Your task to perform on an android device: Search for macbook air on target, select the first entry, and add it to the cart. Image 0: 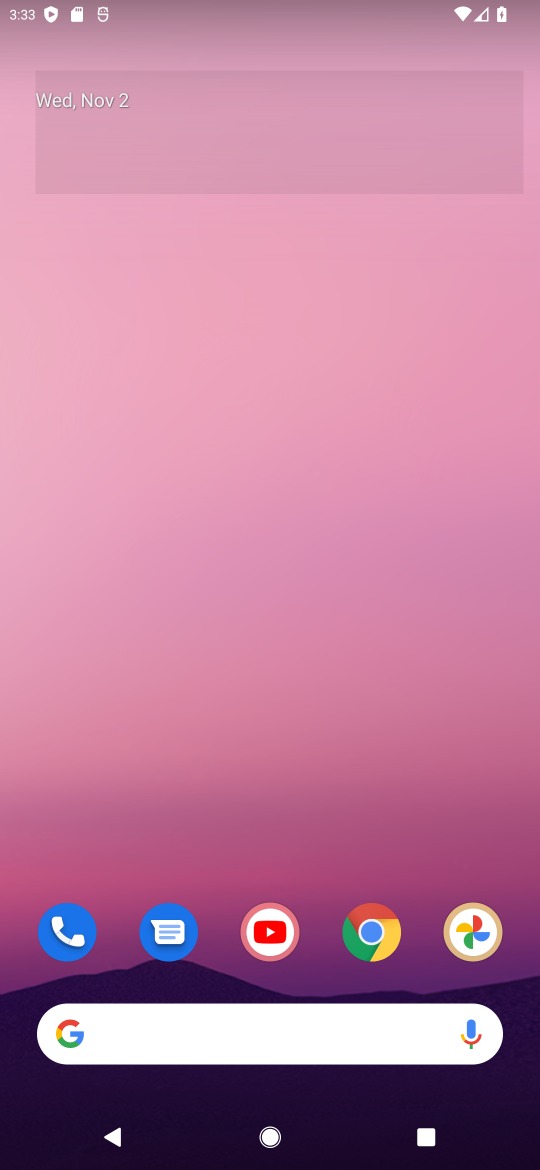
Step 0: click (367, 935)
Your task to perform on an android device: Search for macbook air on target, select the first entry, and add it to the cart. Image 1: 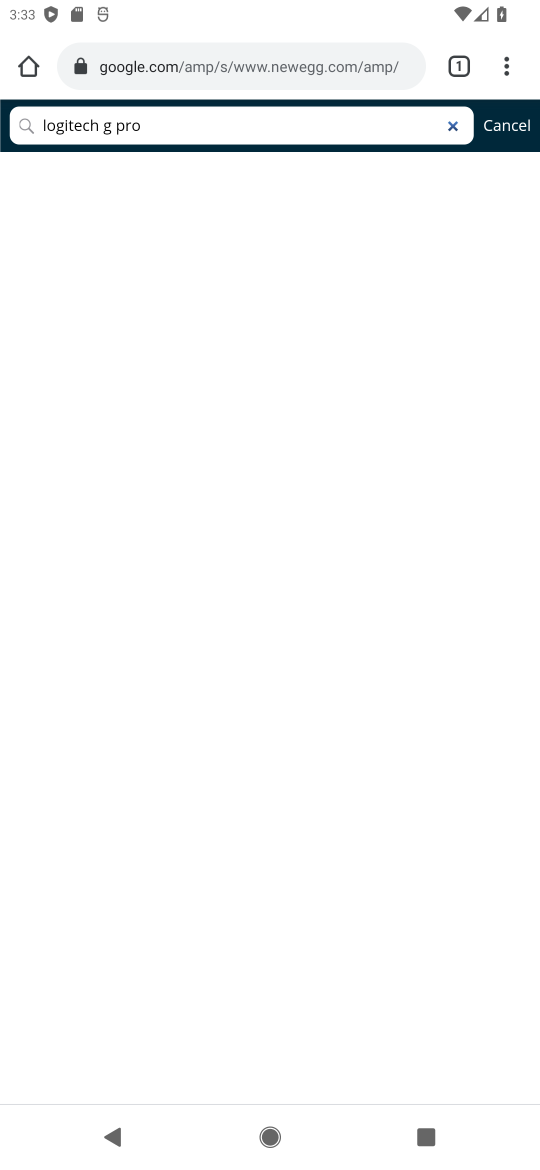
Step 1: click (315, 62)
Your task to perform on an android device: Search for macbook air on target, select the first entry, and add it to the cart. Image 2: 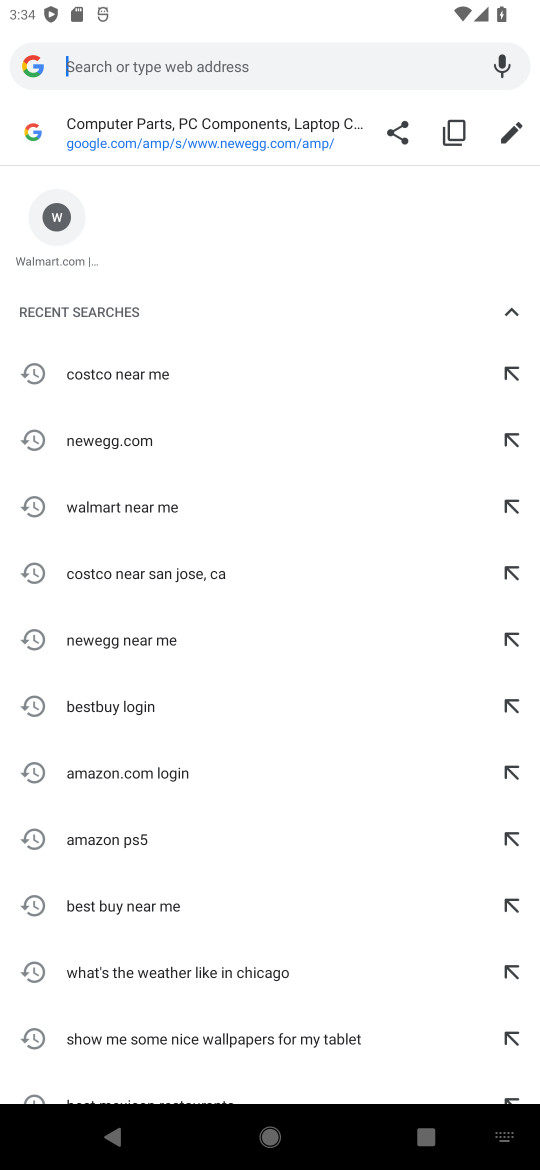
Step 2: type "target"
Your task to perform on an android device: Search for macbook air on target, select the first entry, and add it to the cart. Image 3: 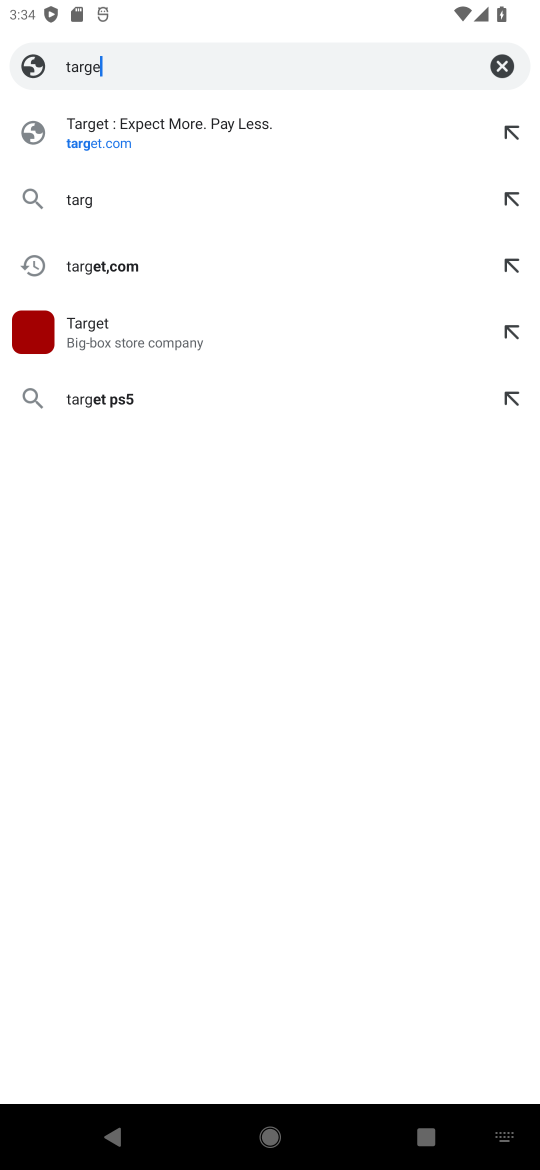
Step 3: press enter
Your task to perform on an android device: Search for macbook air on target, select the first entry, and add it to the cart. Image 4: 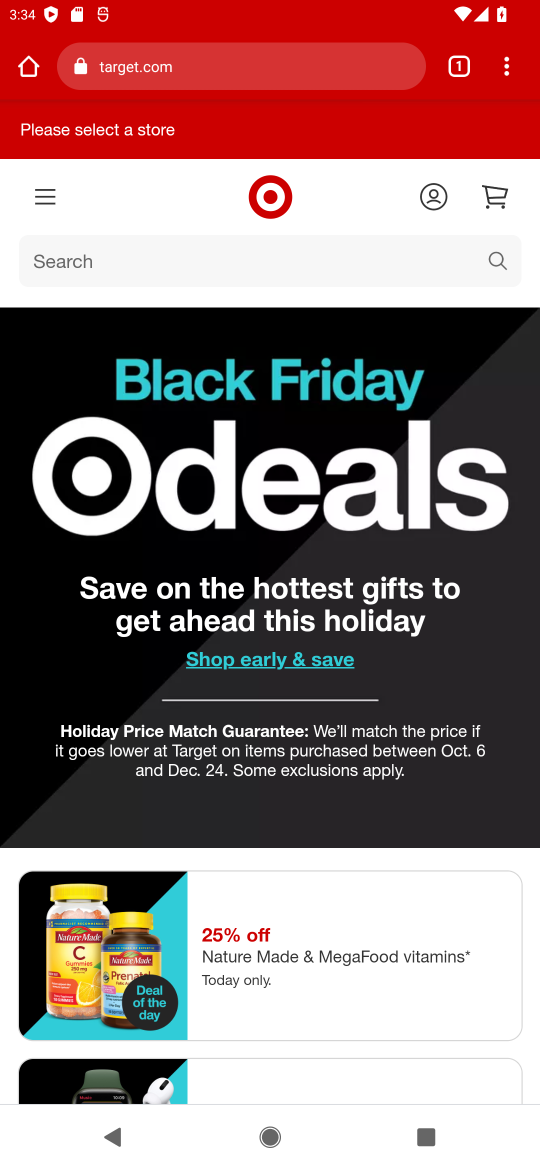
Step 4: click (488, 258)
Your task to perform on an android device: Search for macbook air on target, select the first entry, and add it to the cart. Image 5: 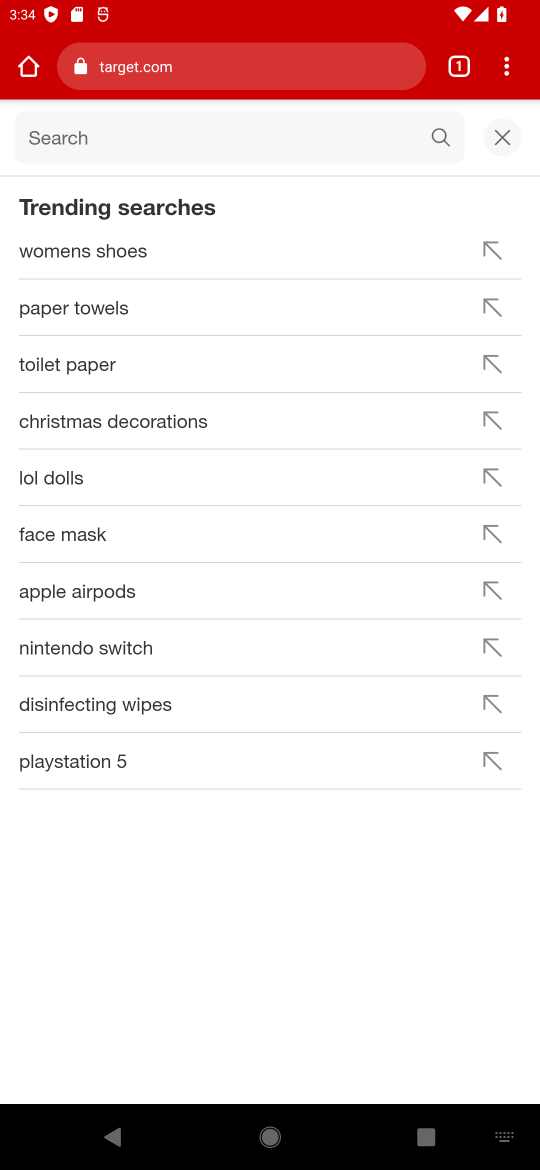
Step 5: type "macbook air"
Your task to perform on an android device: Search for macbook air on target, select the first entry, and add it to the cart. Image 6: 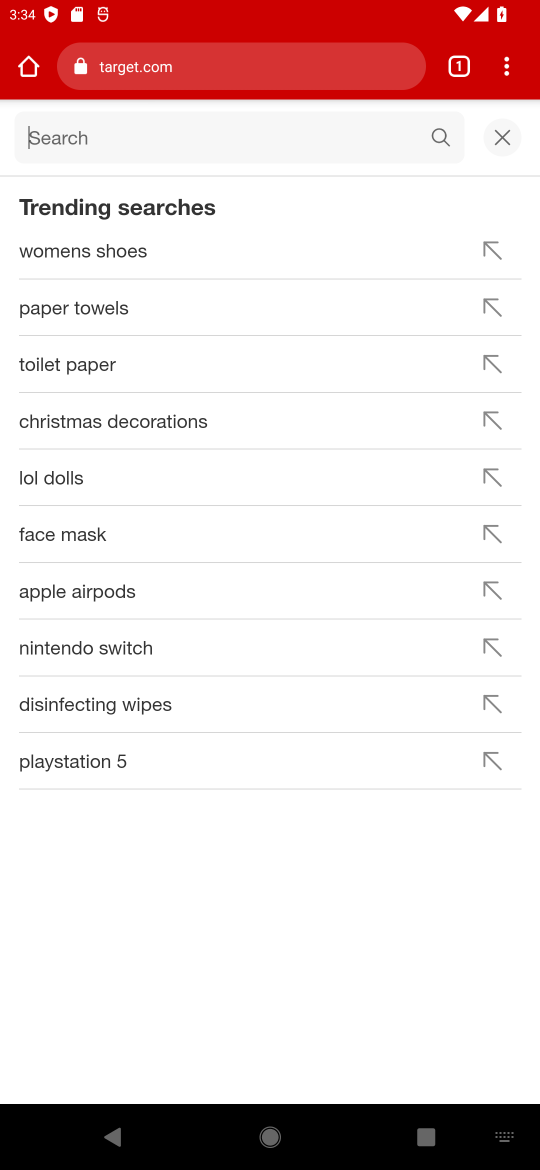
Step 6: press enter
Your task to perform on an android device: Search for macbook air on target, select the first entry, and add it to the cart. Image 7: 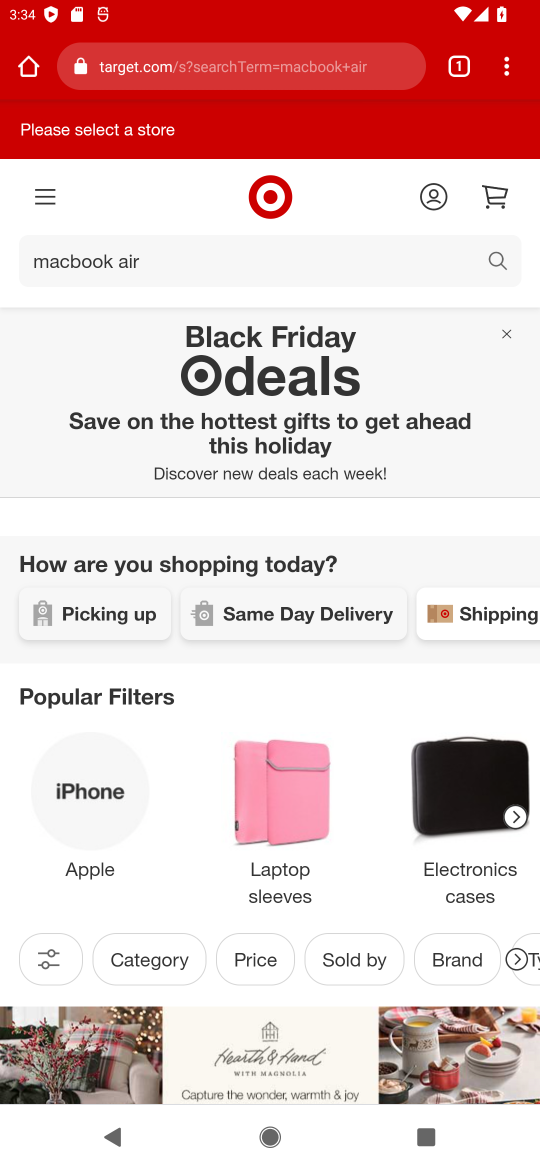
Step 7: drag from (345, 896) to (353, 474)
Your task to perform on an android device: Search for macbook air on target, select the first entry, and add it to the cart. Image 8: 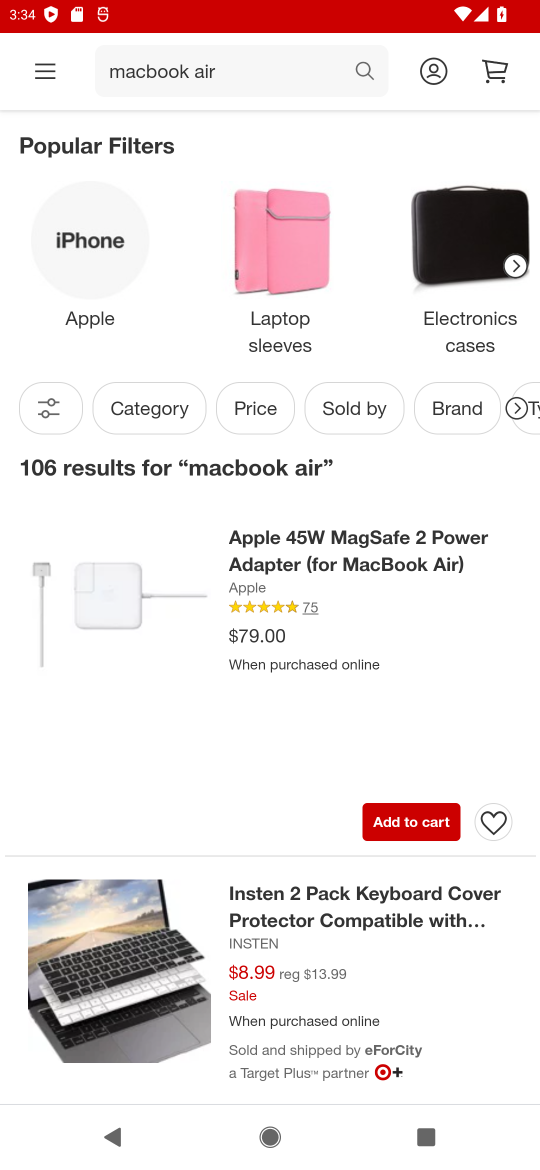
Step 8: click (118, 593)
Your task to perform on an android device: Search for macbook air on target, select the first entry, and add it to the cart. Image 9: 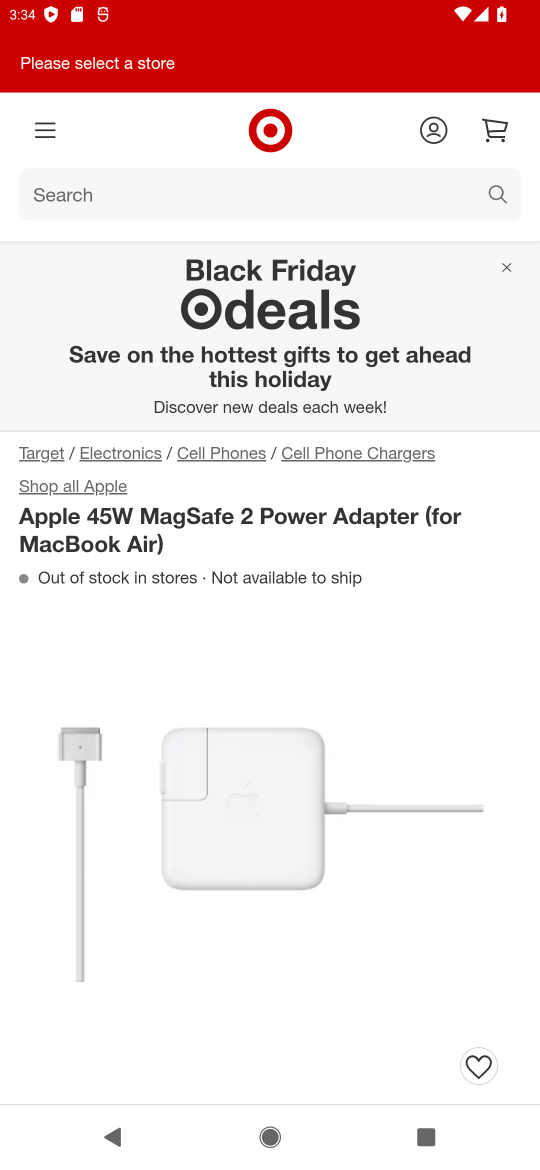
Step 9: drag from (400, 870) to (405, 383)
Your task to perform on an android device: Search for macbook air on target, select the first entry, and add it to the cart. Image 10: 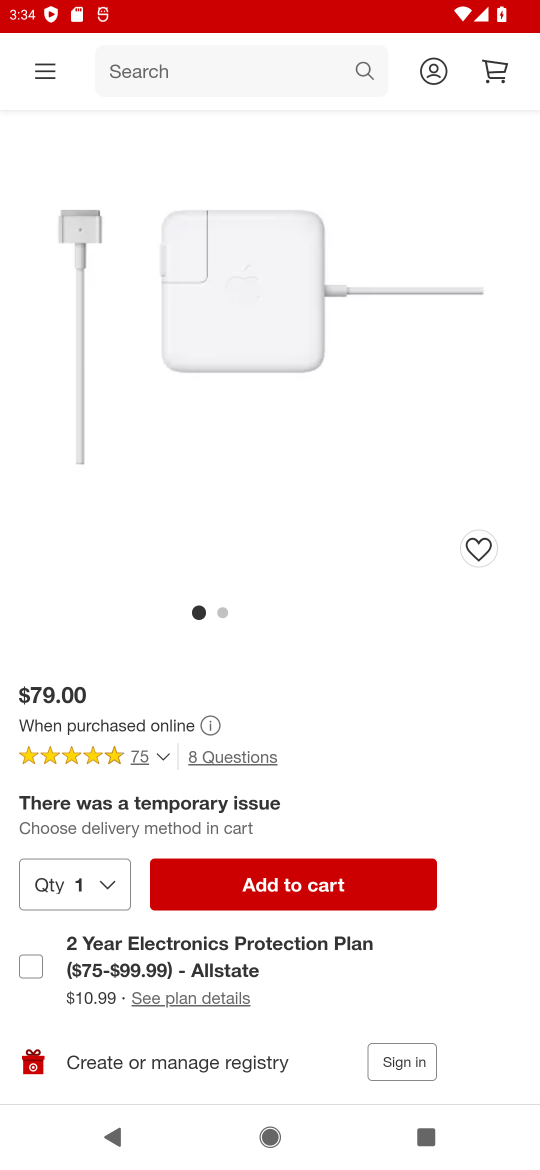
Step 10: click (372, 893)
Your task to perform on an android device: Search for macbook air on target, select the first entry, and add it to the cart. Image 11: 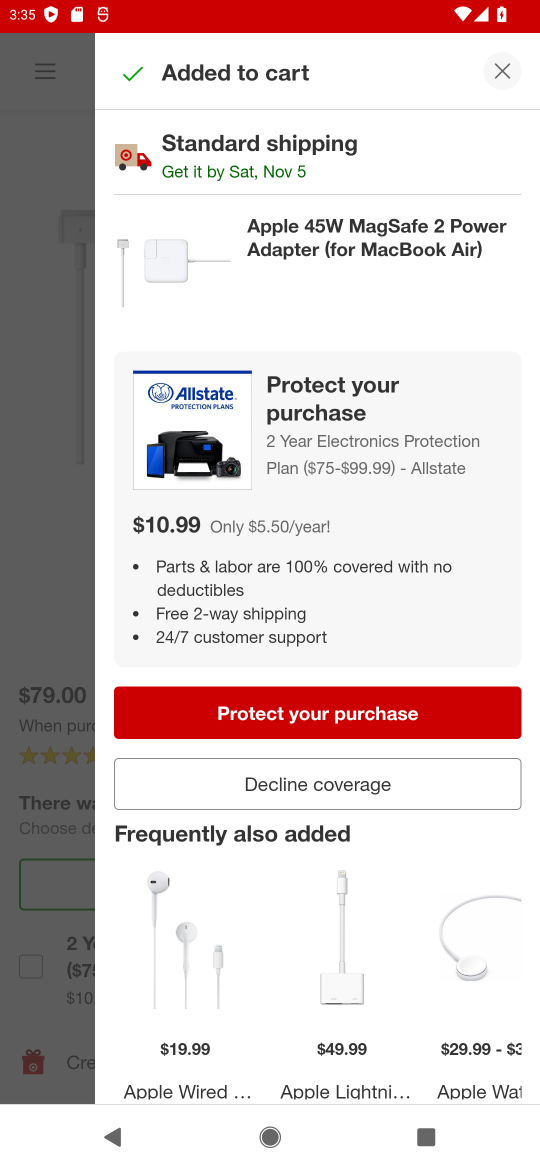
Step 11: task complete